Your task to perform on an android device: Go to privacy settings Image 0: 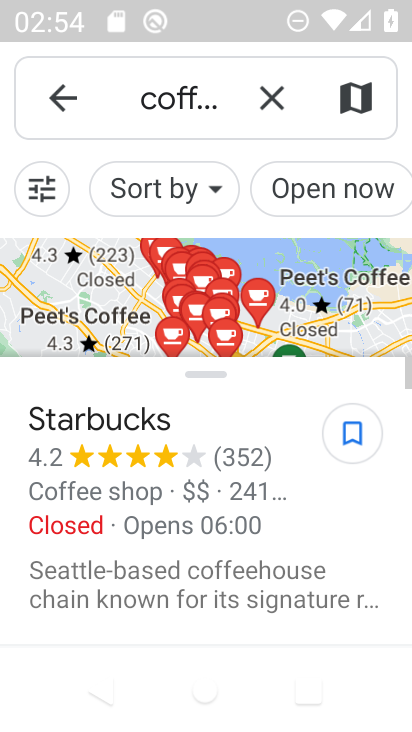
Step 0: press home button
Your task to perform on an android device: Go to privacy settings Image 1: 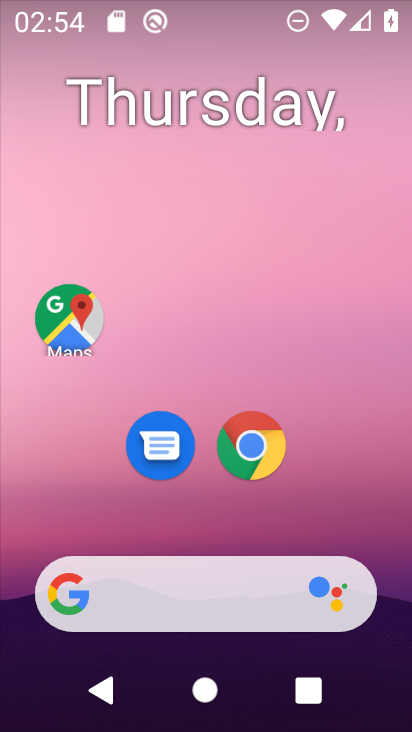
Step 1: drag from (17, 627) to (182, 199)
Your task to perform on an android device: Go to privacy settings Image 2: 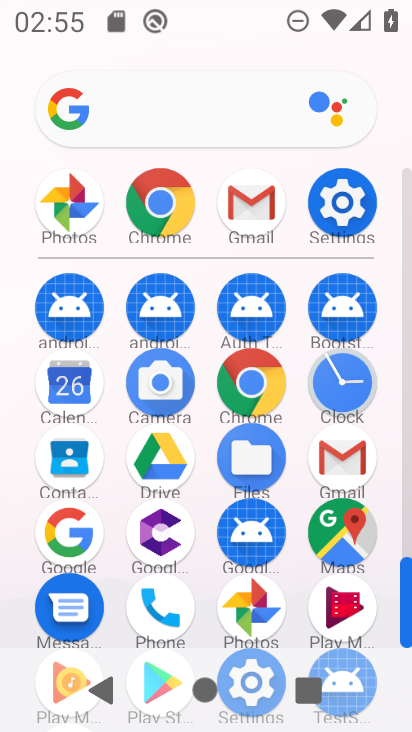
Step 2: click (345, 202)
Your task to perform on an android device: Go to privacy settings Image 3: 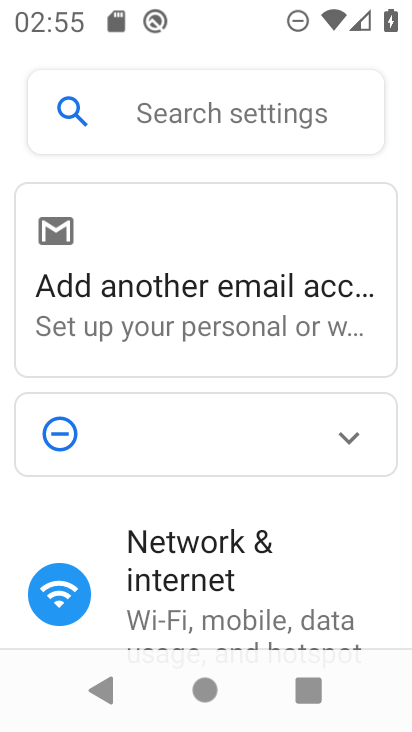
Step 3: drag from (1, 580) to (204, 63)
Your task to perform on an android device: Go to privacy settings Image 4: 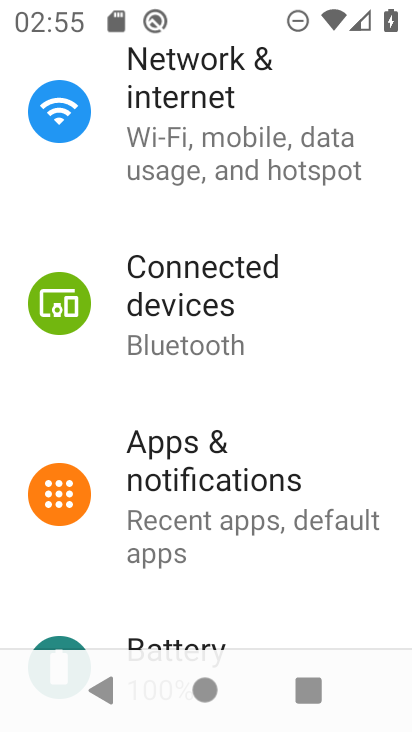
Step 4: drag from (6, 572) to (211, 262)
Your task to perform on an android device: Go to privacy settings Image 5: 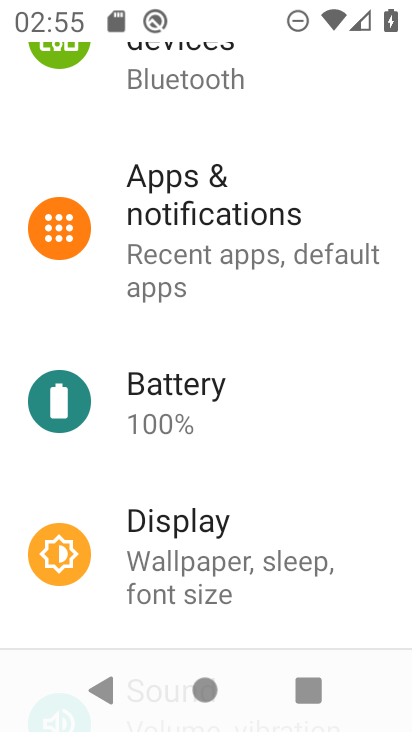
Step 5: drag from (30, 548) to (308, 206)
Your task to perform on an android device: Go to privacy settings Image 6: 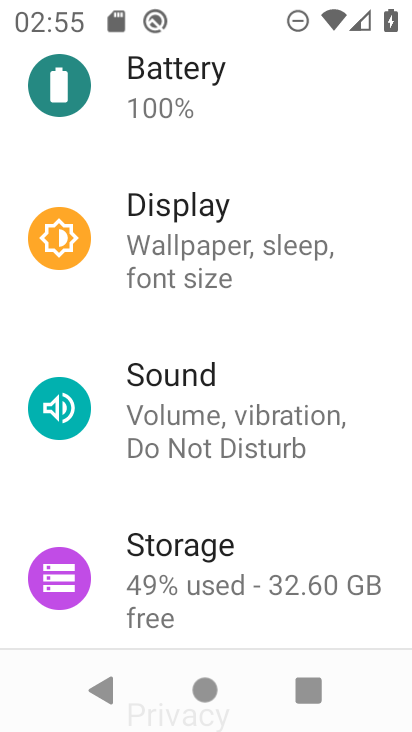
Step 6: drag from (23, 650) to (211, 220)
Your task to perform on an android device: Go to privacy settings Image 7: 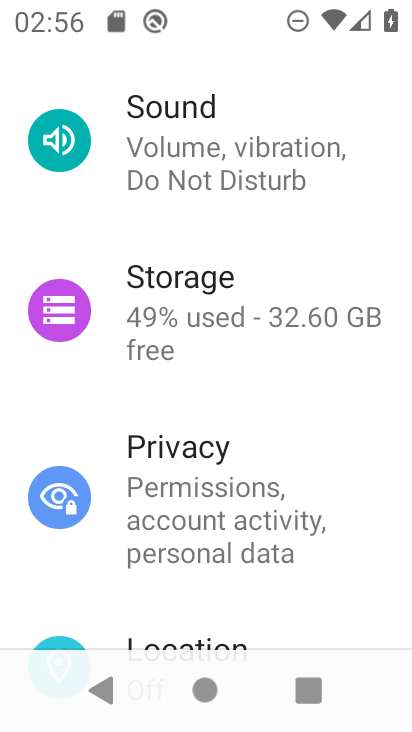
Step 7: click (209, 516)
Your task to perform on an android device: Go to privacy settings Image 8: 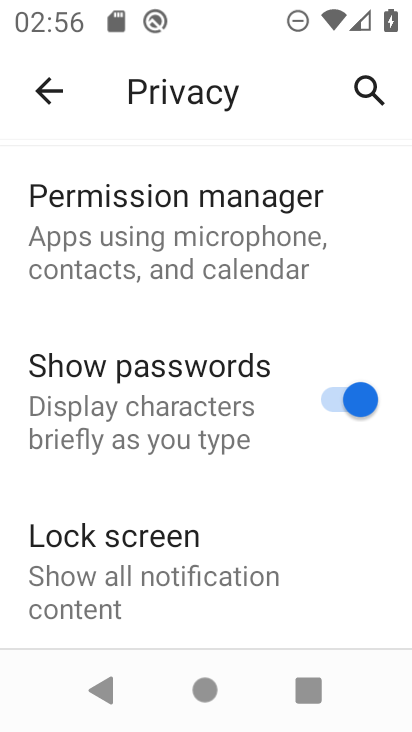
Step 8: task complete